Your task to perform on an android device: open wifi settings Image 0: 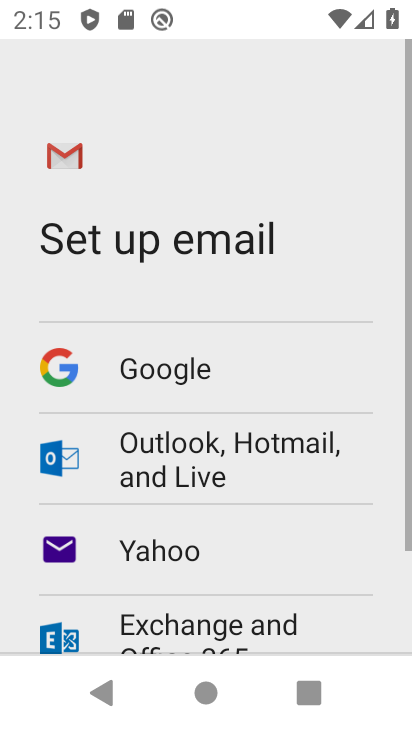
Step 0: press home button
Your task to perform on an android device: open wifi settings Image 1: 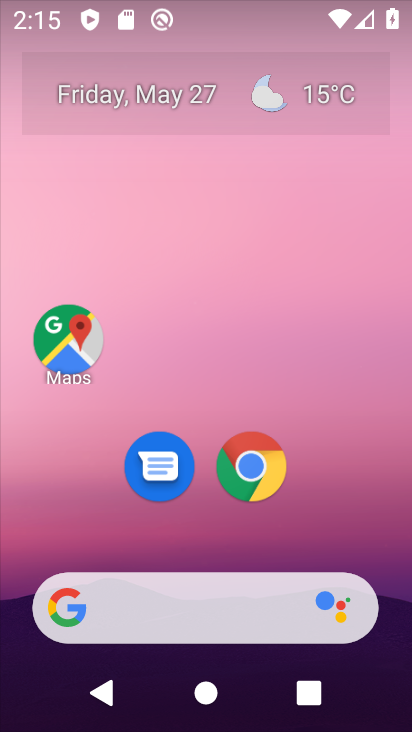
Step 1: drag from (349, 547) to (318, 191)
Your task to perform on an android device: open wifi settings Image 2: 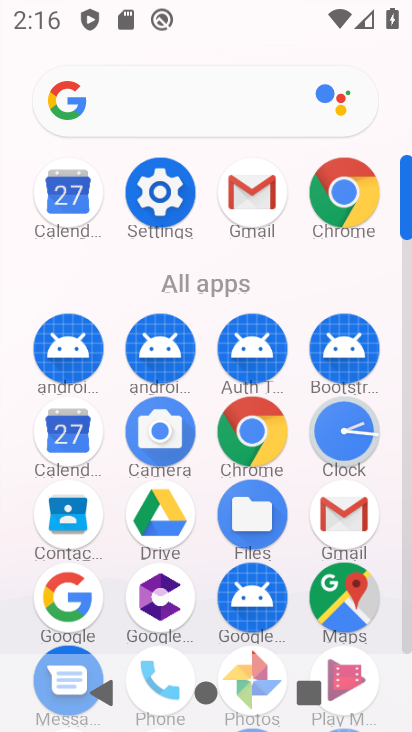
Step 2: drag from (218, 651) to (218, 396)
Your task to perform on an android device: open wifi settings Image 3: 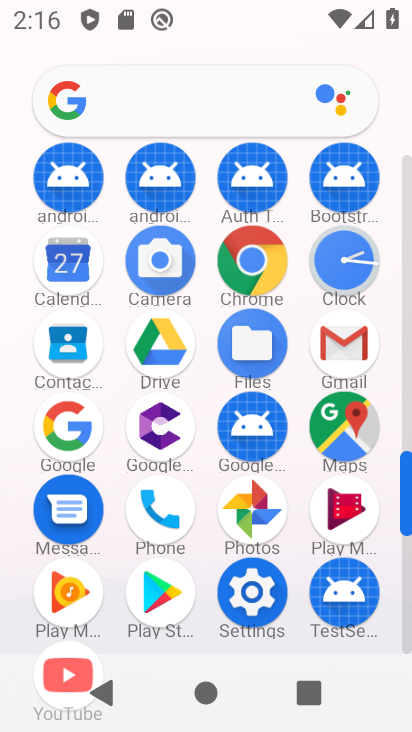
Step 3: click (249, 591)
Your task to perform on an android device: open wifi settings Image 4: 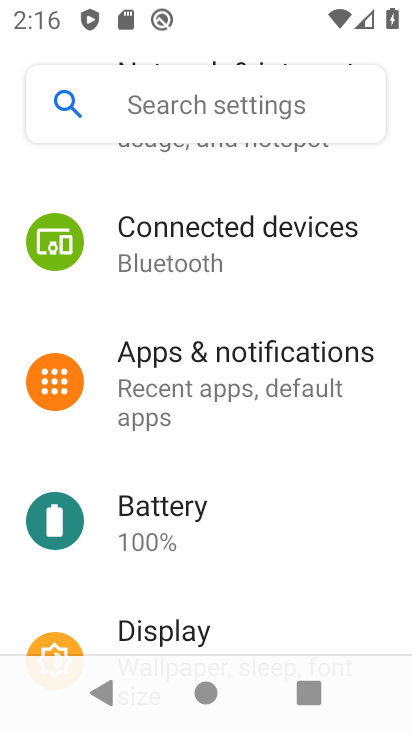
Step 4: drag from (250, 221) to (277, 590)
Your task to perform on an android device: open wifi settings Image 5: 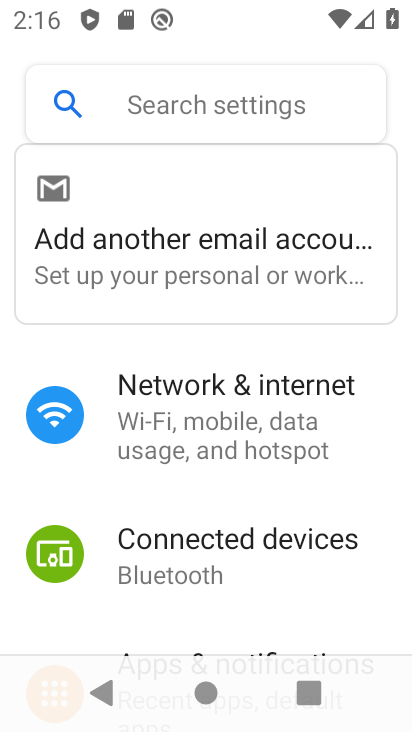
Step 5: click (299, 407)
Your task to perform on an android device: open wifi settings Image 6: 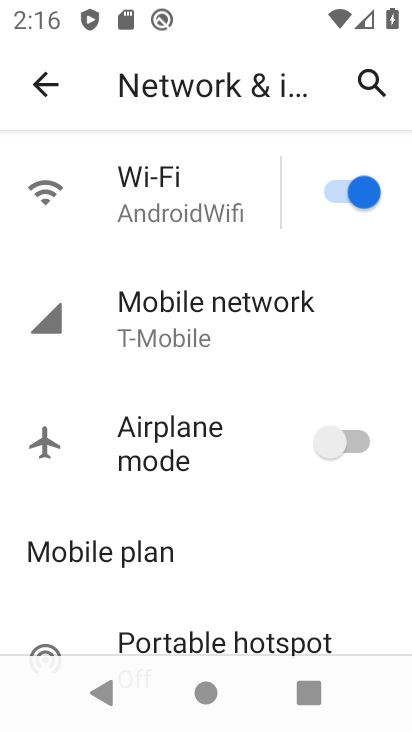
Step 6: click (193, 199)
Your task to perform on an android device: open wifi settings Image 7: 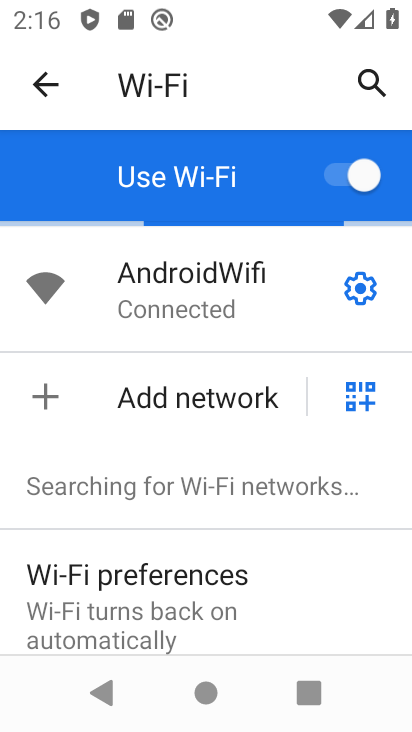
Step 7: task complete